Your task to perform on an android device: uninstall "Facebook" Image 0: 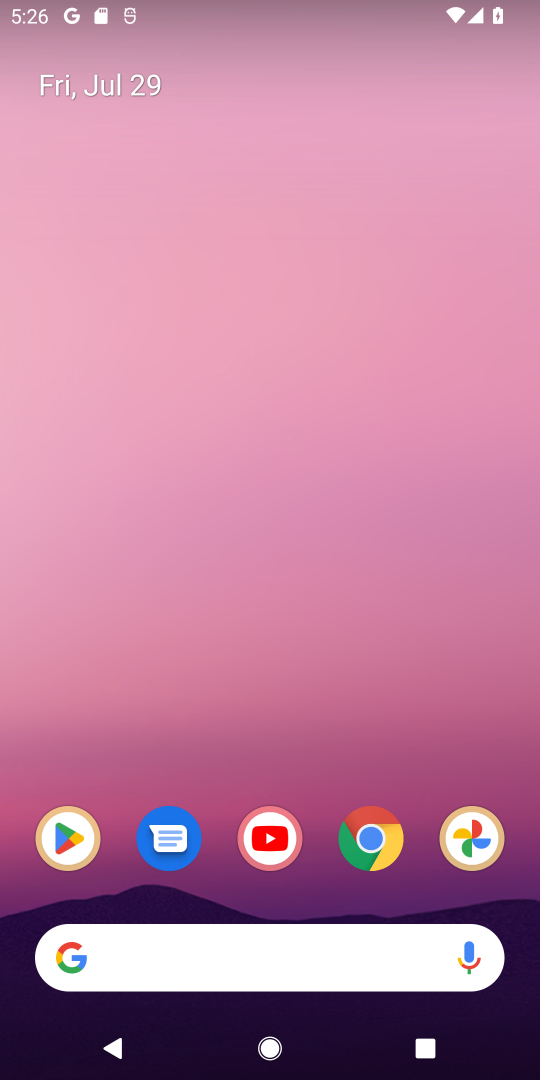
Step 0: click (61, 837)
Your task to perform on an android device: uninstall "Facebook" Image 1: 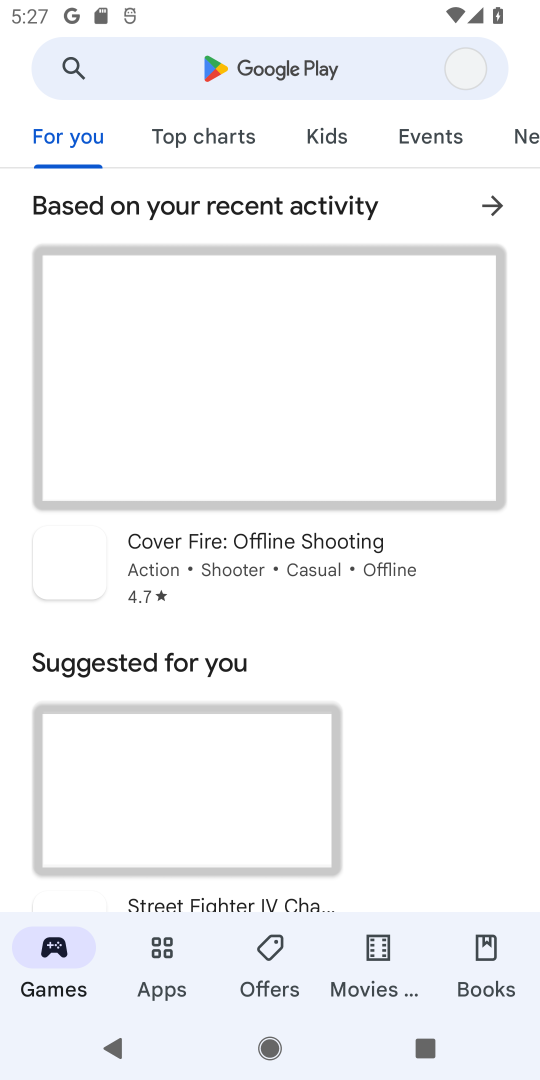
Step 1: click (293, 75)
Your task to perform on an android device: uninstall "Facebook" Image 2: 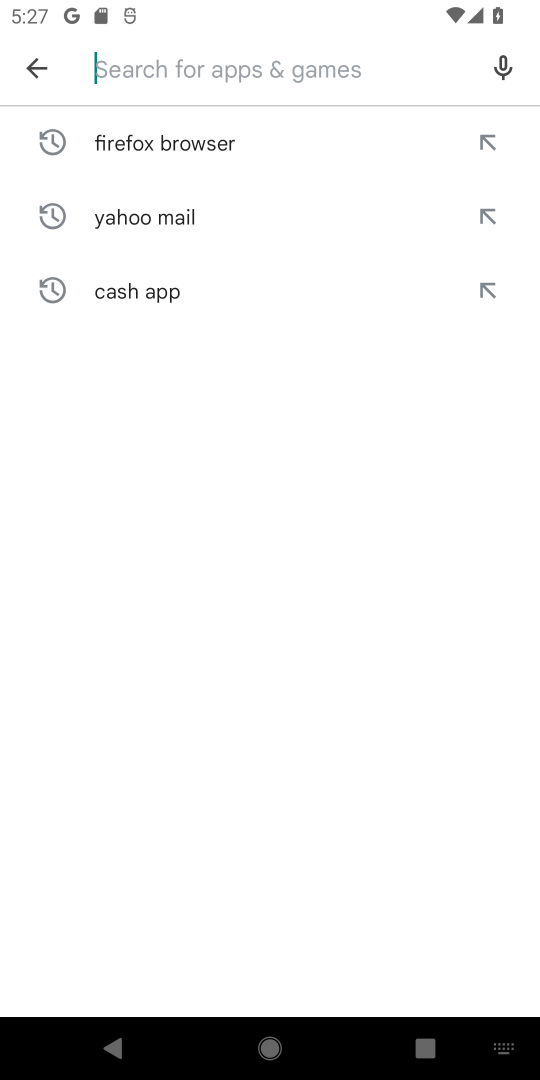
Step 2: type "facebook"
Your task to perform on an android device: uninstall "Facebook" Image 3: 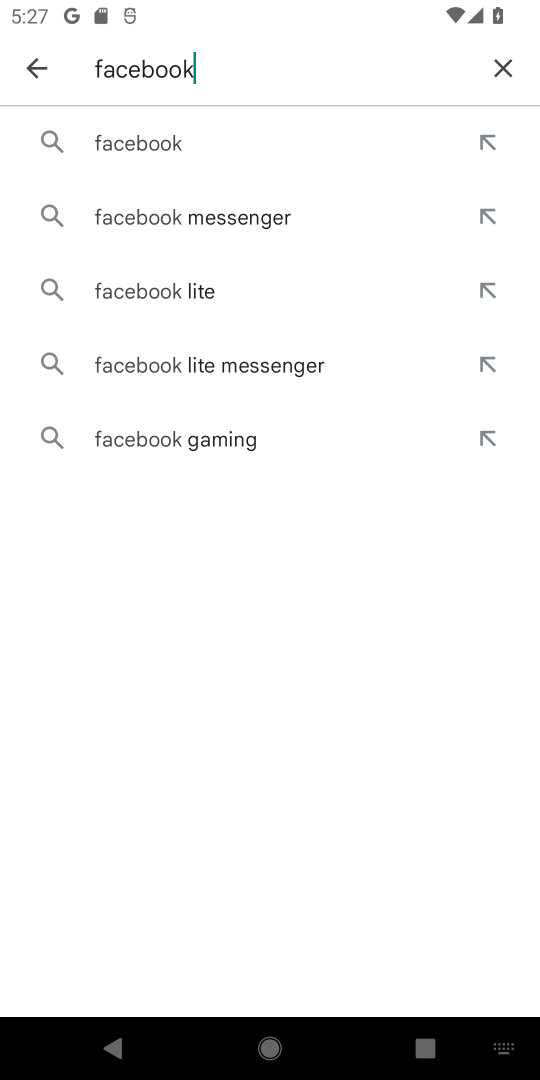
Step 3: click (159, 129)
Your task to perform on an android device: uninstall "Facebook" Image 4: 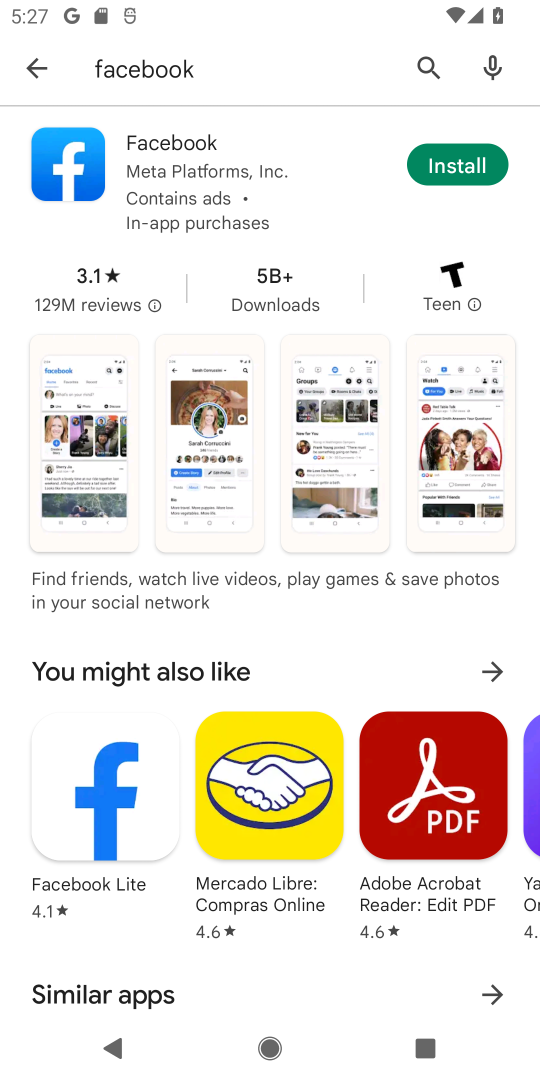
Step 4: task complete